Your task to perform on an android device: show emergency info Image 0: 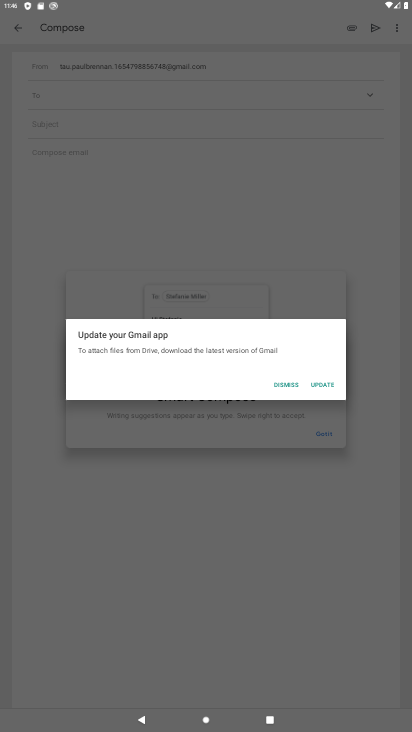
Step 0: press home button
Your task to perform on an android device: show emergency info Image 1: 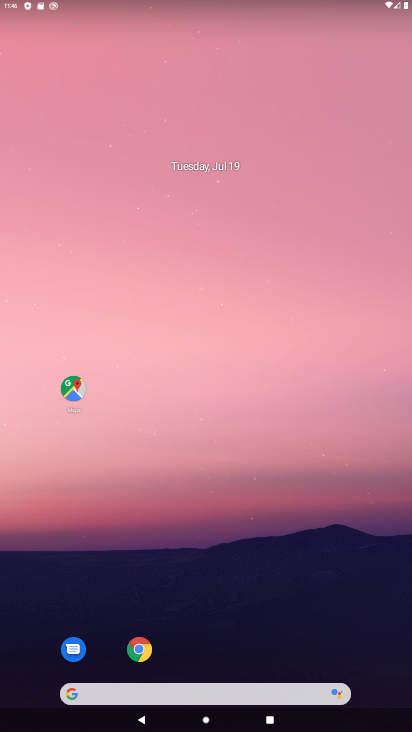
Step 1: drag from (226, 585) to (219, 0)
Your task to perform on an android device: show emergency info Image 2: 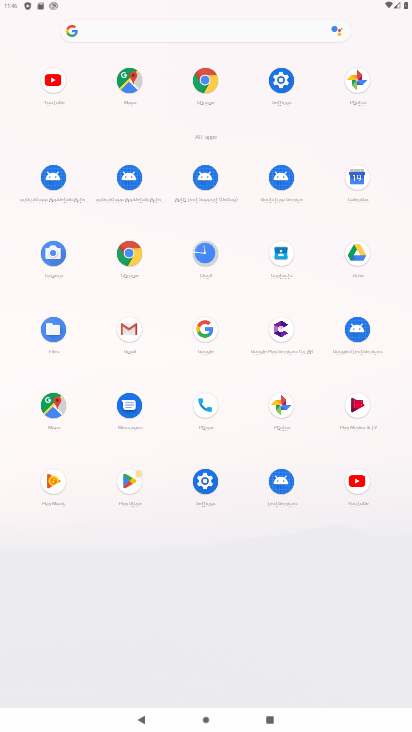
Step 2: click (282, 81)
Your task to perform on an android device: show emergency info Image 3: 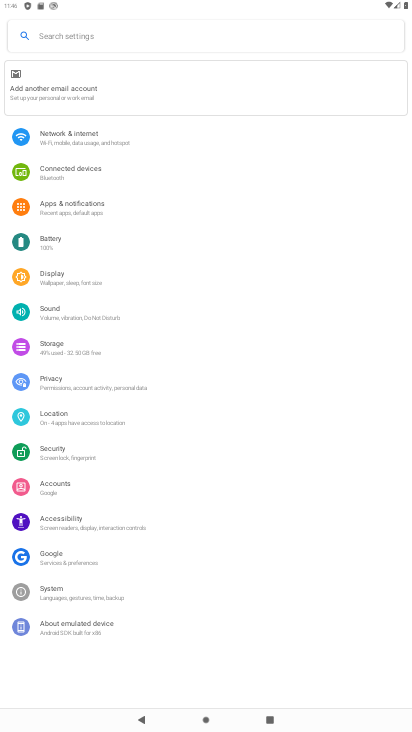
Step 3: click (86, 627)
Your task to perform on an android device: show emergency info Image 4: 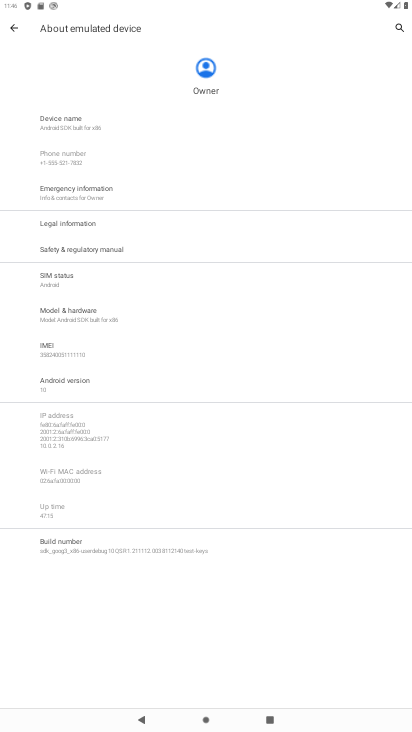
Step 4: click (69, 191)
Your task to perform on an android device: show emergency info Image 5: 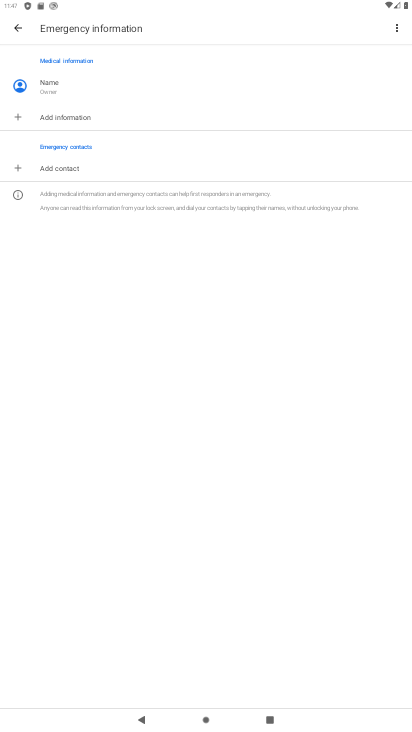
Step 5: task complete